Your task to perform on an android device: create a new album in the google photos Image 0: 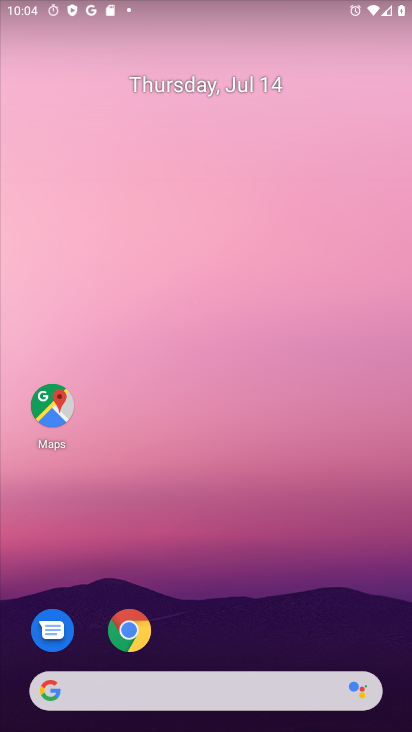
Step 0: drag from (39, 702) to (172, 58)
Your task to perform on an android device: create a new album in the google photos Image 1: 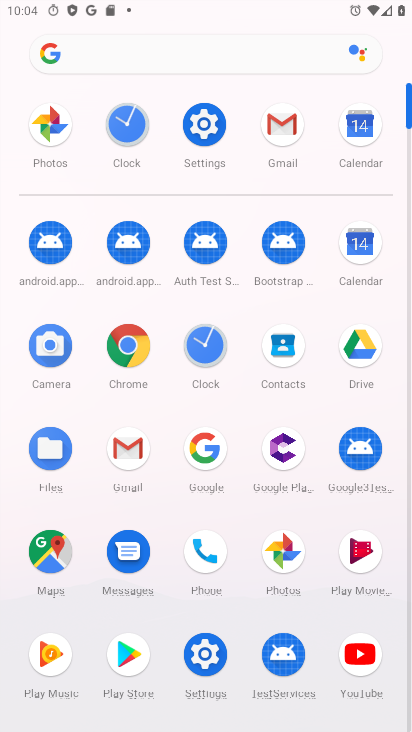
Step 1: click (283, 569)
Your task to perform on an android device: create a new album in the google photos Image 2: 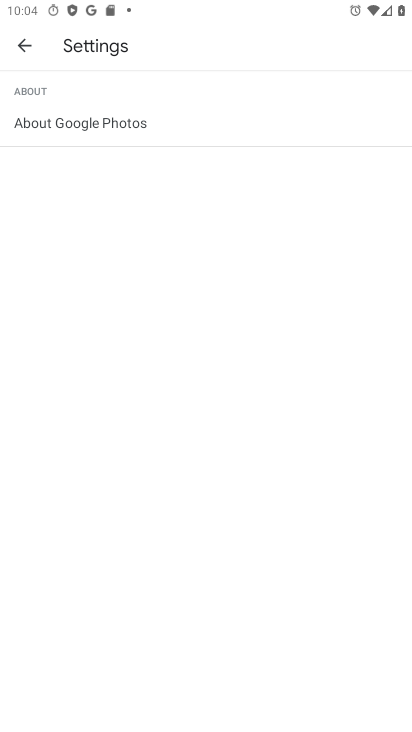
Step 2: click (23, 44)
Your task to perform on an android device: create a new album in the google photos Image 3: 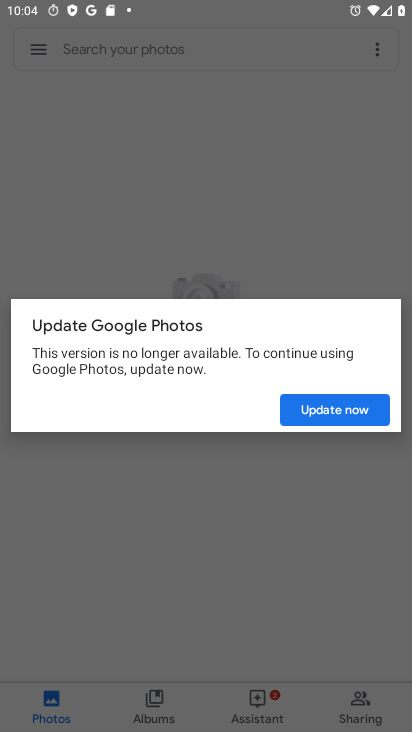
Step 3: click (341, 416)
Your task to perform on an android device: create a new album in the google photos Image 4: 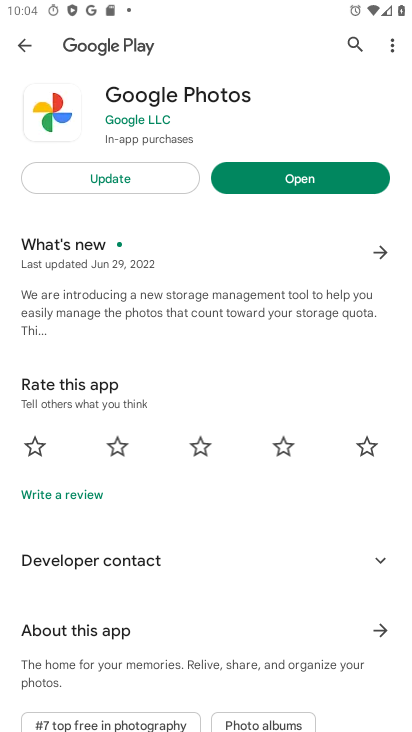
Step 4: click (298, 166)
Your task to perform on an android device: create a new album in the google photos Image 5: 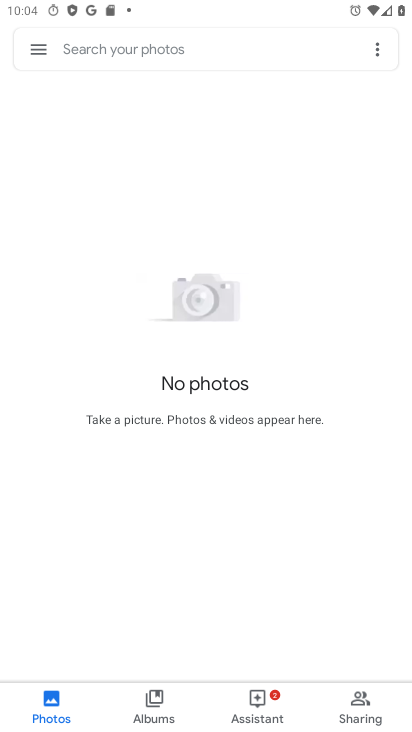
Step 5: task complete